Your task to perform on an android device: turn on sleep mode Image 0: 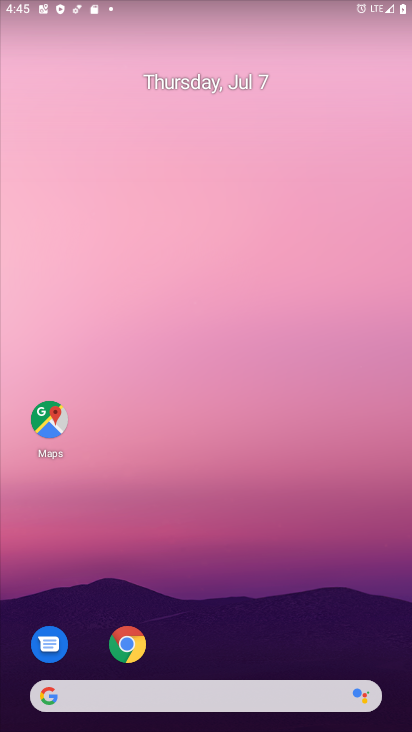
Step 0: drag from (238, 616) to (226, 111)
Your task to perform on an android device: turn on sleep mode Image 1: 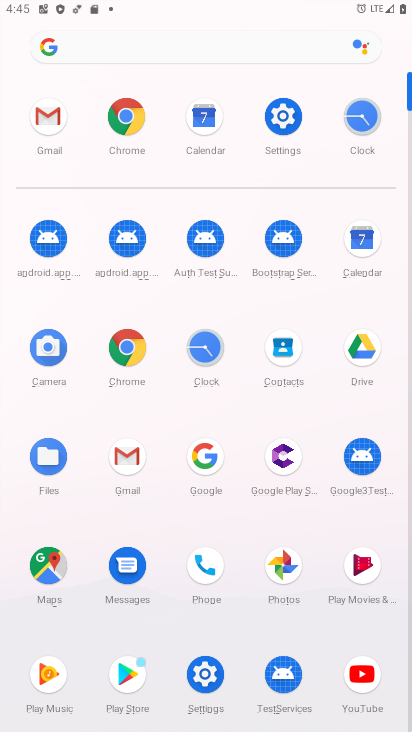
Step 1: click (283, 115)
Your task to perform on an android device: turn on sleep mode Image 2: 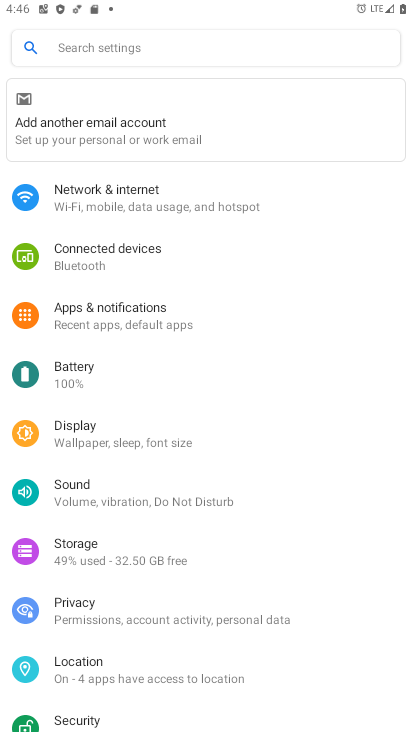
Step 2: drag from (126, 574) to (173, 476)
Your task to perform on an android device: turn on sleep mode Image 3: 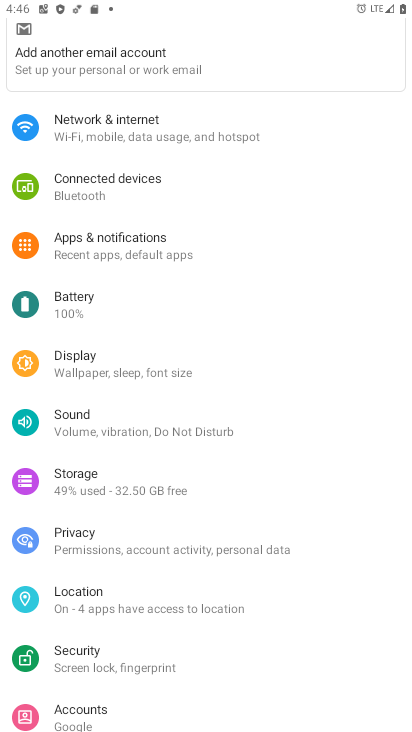
Step 3: click (128, 374)
Your task to perform on an android device: turn on sleep mode Image 4: 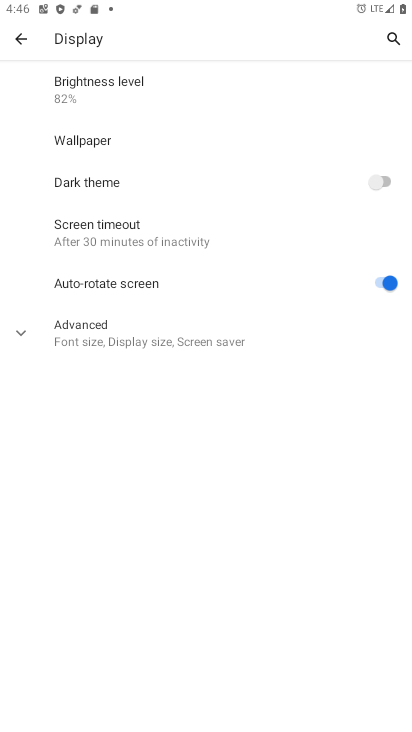
Step 4: task complete